Your task to perform on an android device: turn pop-ups off in chrome Image 0: 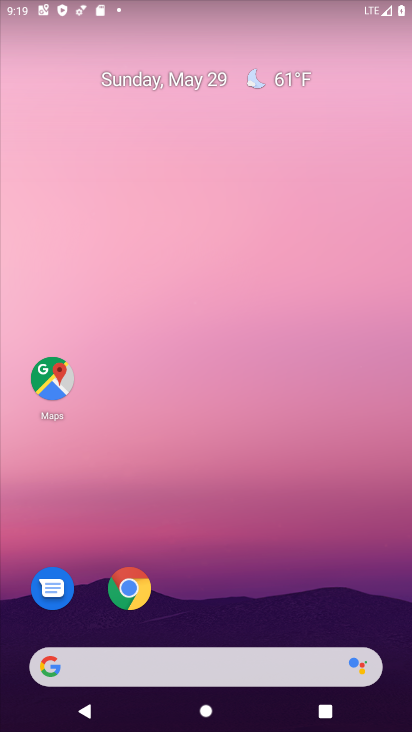
Step 0: drag from (279, 539) to (254, 0)
Your task to perform on an android device: turn pop-ups off in chrome Image 1: 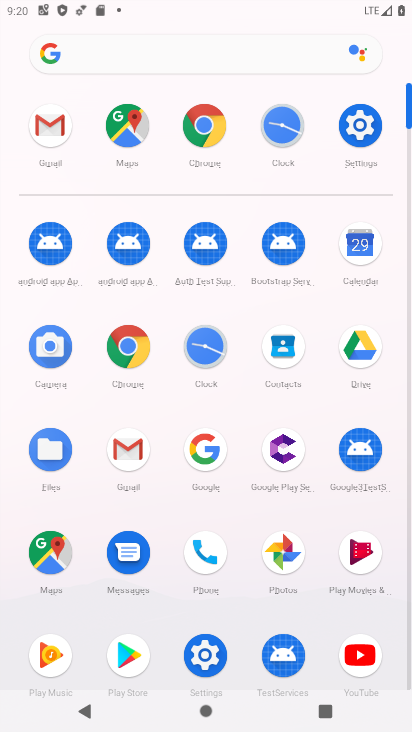
Step 1: click (205, 128)
Your task to perform on an android device: turn pop-ups off in chrome Image 2: 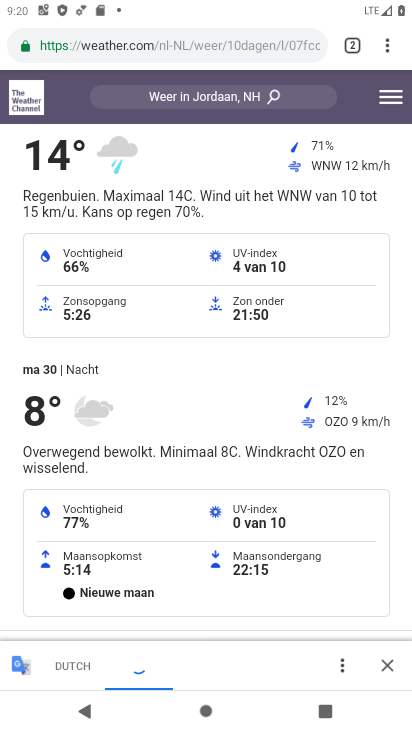
Step 2: click (388, 53)
Your task to perform on an android device: turn pop-ups off in chrome Image 3: 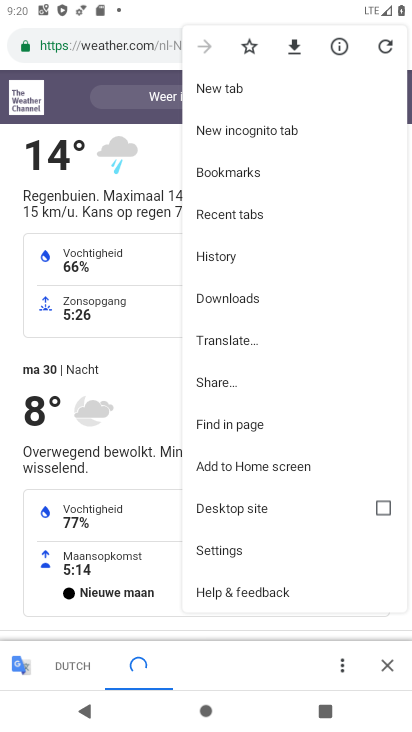
Step 3: click (256, 553)
Your task to perform on an android device: turn pop-ups off in chrome Image 4: 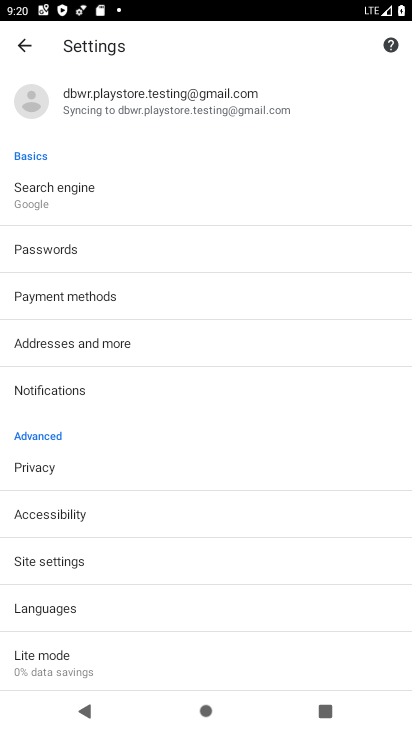
Step 4: click (71, 570)
Your task to perform on an android device: turn pop-ups off in chrome Image 5: 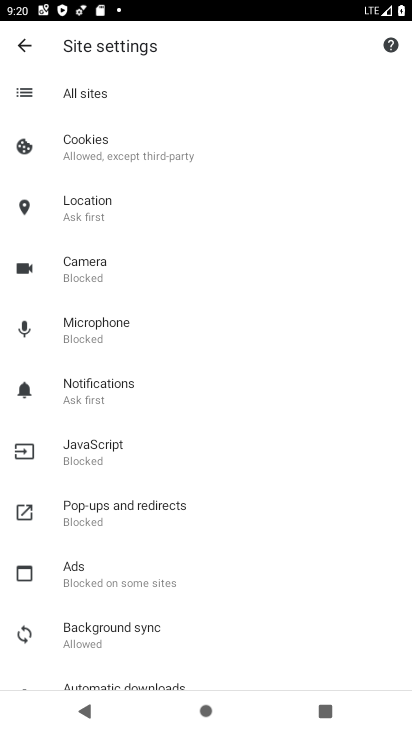
Step 5: click (111, 519)
Your task to perform on an android device: turn pop-ups off in chrome Image 6: 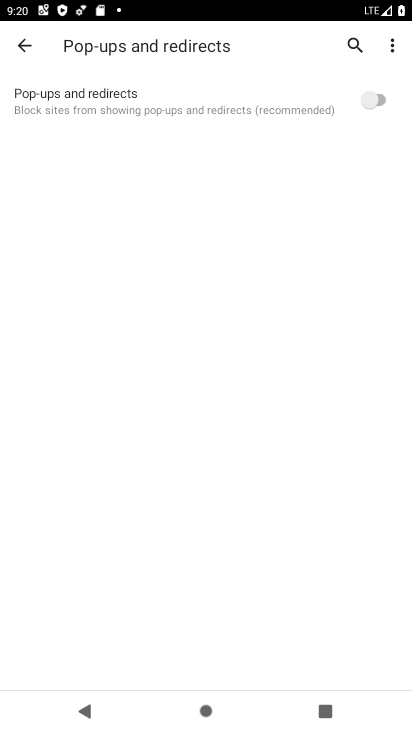
Step 6: task complete